Your task to perform on an android device: What is the news today? Image 0: 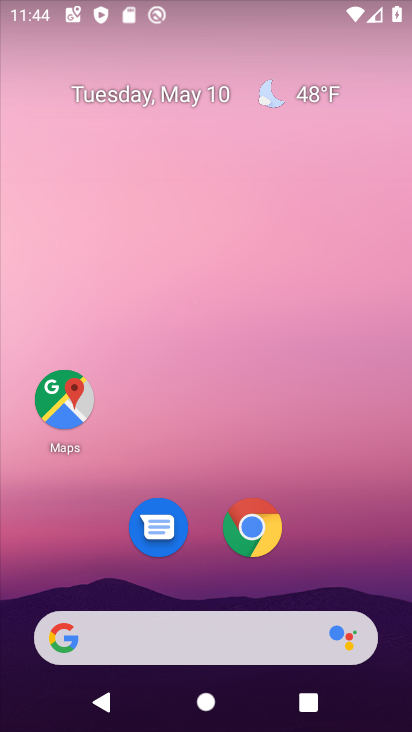
Step 0: drag from (5, 302) to (298, 306)
Your task to perform on an android device: What is the news today? Image 1: 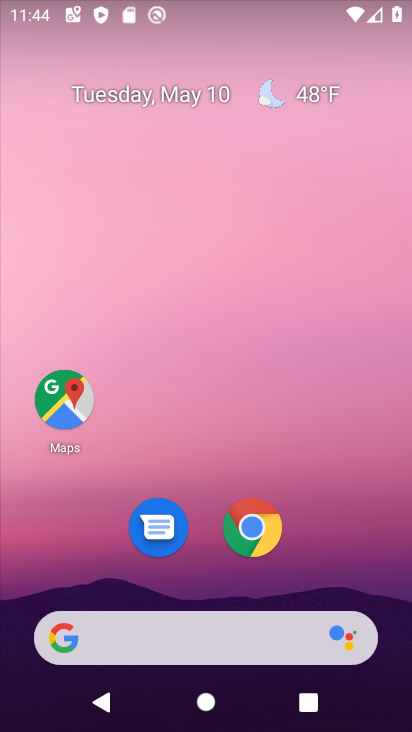
Step 1: task complete